Your task to perform on an android device: Search for Italian restaurants on Maps Image 0: 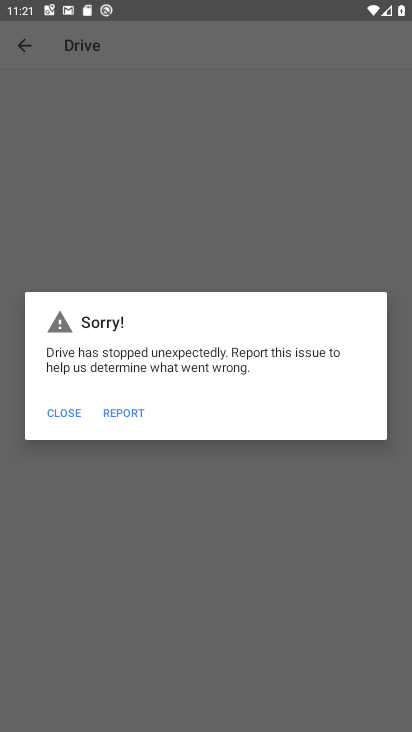
Step 0: drag from (226, 671) to (234, 243)
Your task to perform on an android device: Search for Italian restaurants on Maps Image 1: 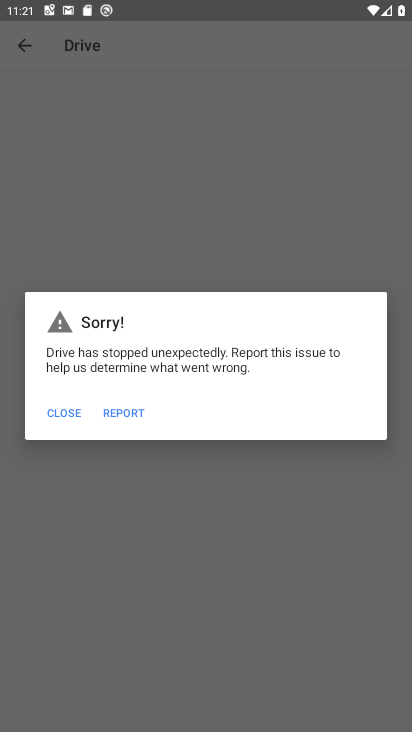
Step 1: press home button
Your task to perform on an android device: Search for Italian restaurants on Maps Image 2: 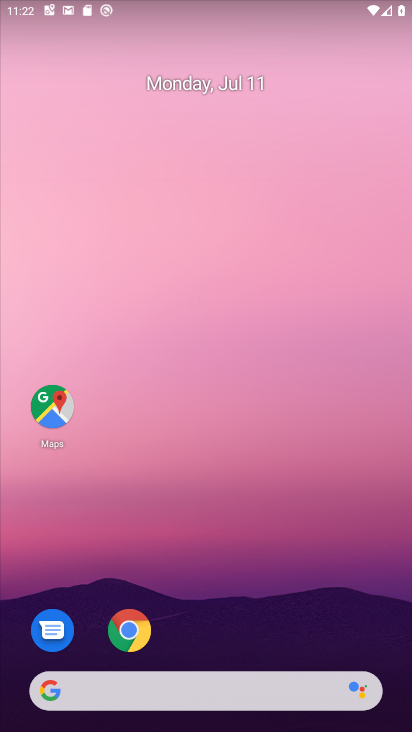
Step 2: drag from (259, 631) to (272, 227)
Your task to perform on an android device: Search for Italian restaurants on Maps Image 3: 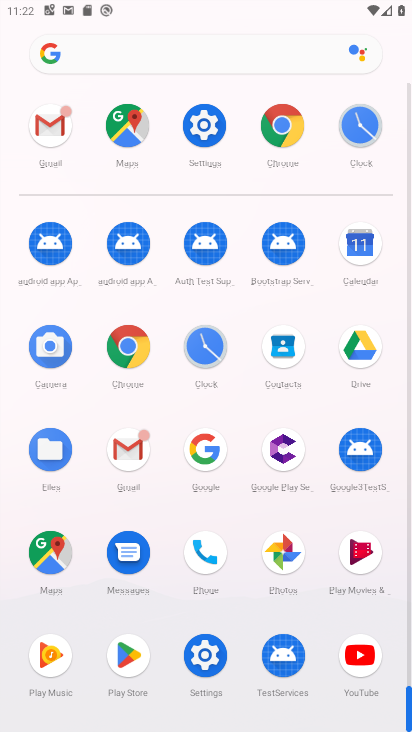
Step 3: click (54, 565)
Your task to perform on an android device: Search for Italian restaurants on Maps Image 4: 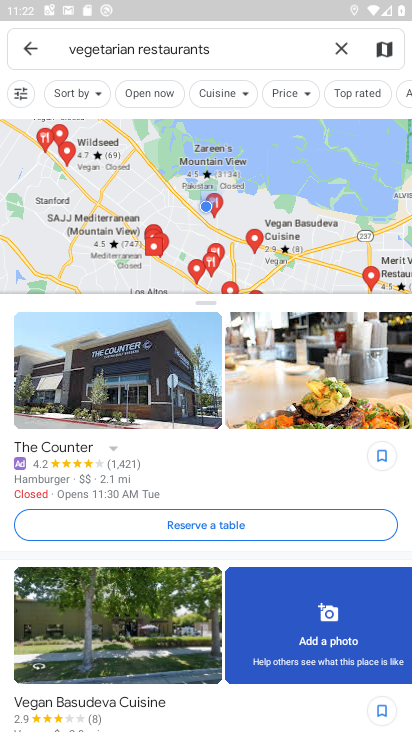
Step 4: click (288, 55)
Your task to perform on an android device: Search for Italian restaurants on Maps Image 5: 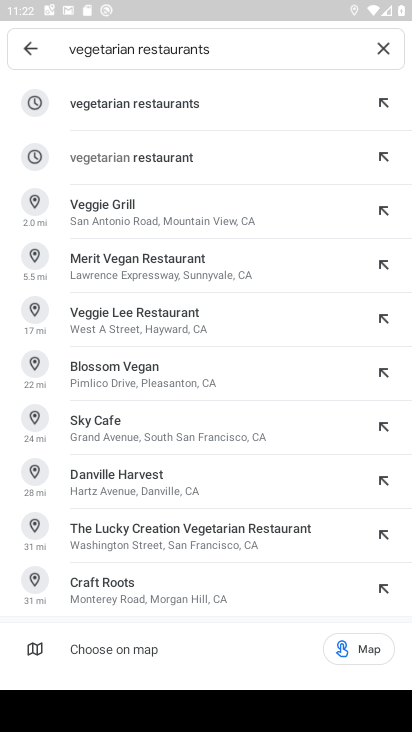
Step 5: click (379, 53)
Your task to perform on an android device: Search for Italian restaurants on Maps Image 6: 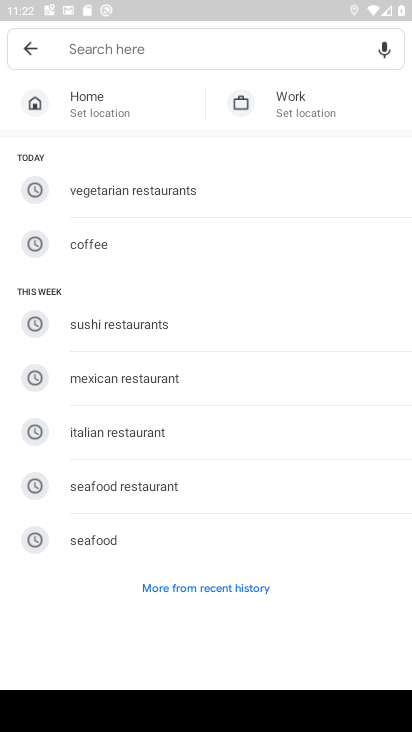
Step 6: type "italian "
Your task to perform on an android device: Search for Italian restaurants on Maps Image 7: 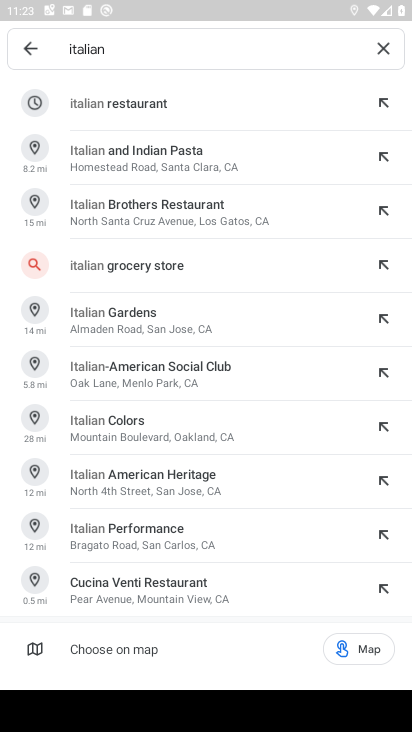
Step 7: click (143, 117)
Your task to perform on an android device: Search for Italian restaurants on Maps Image 8: 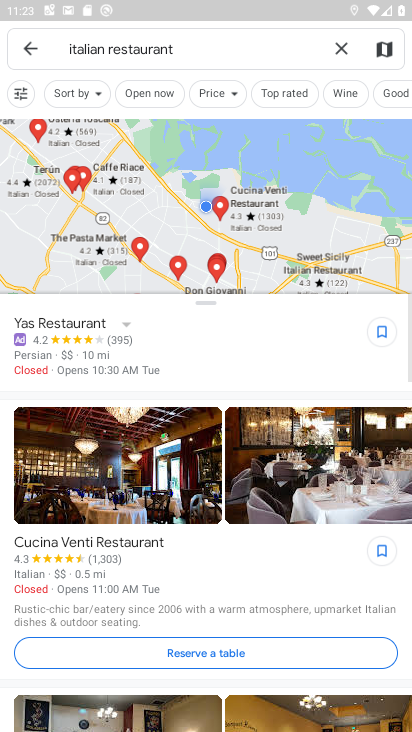
Step 8: task complete